Your task to perform on an android device: Open maps Image 0: 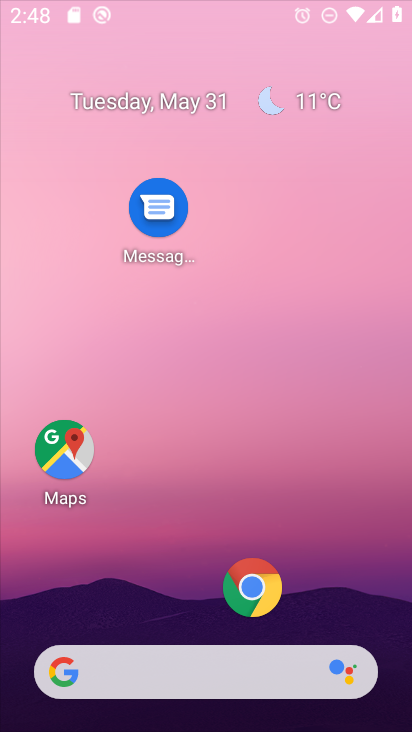
Step 0: click (353, 48)
Your task to perform on an android device: Open maps Image 1: 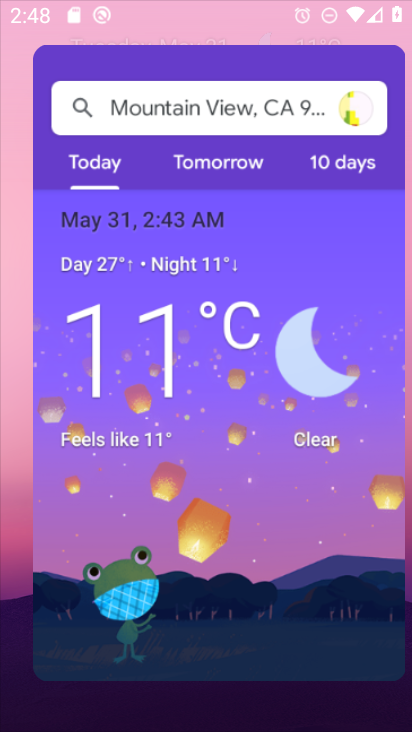
Step 1: drag from (190, 575) to (235, 167)
Your task to perform on an android device: Open maps Image 2: 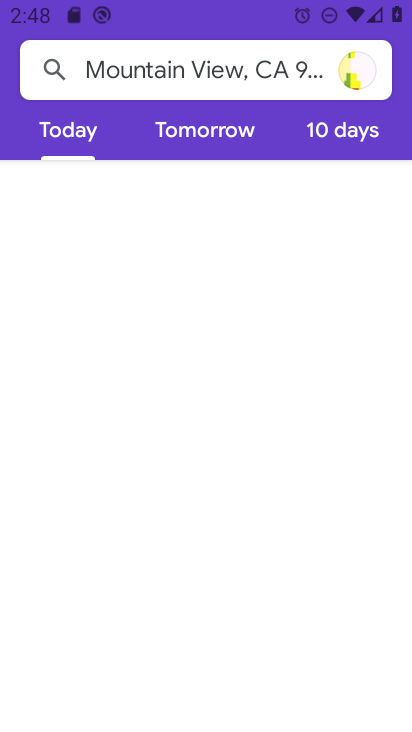
Step 2: press home button
Your task to perform on an android device: Open maps Image 3: 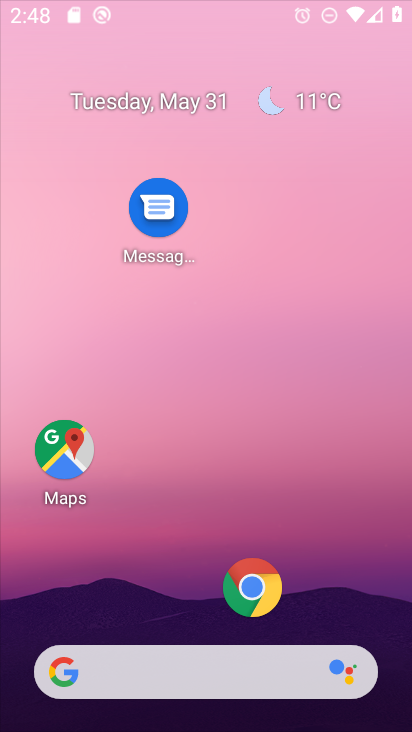
Step 3: drag from (251, 580) to (295, 118)
Your task to perform on an android device: Open maps Image 4: 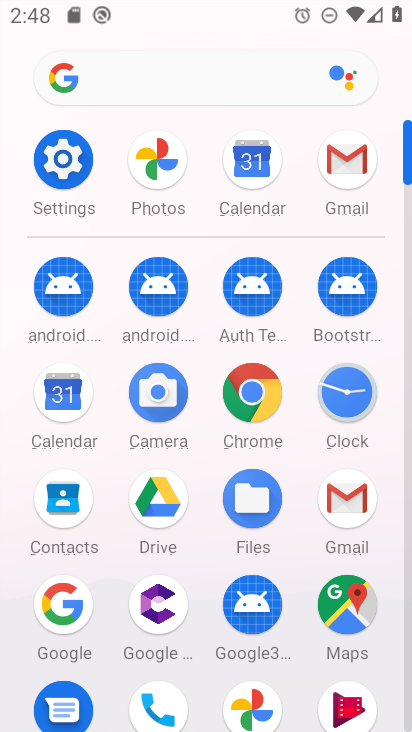
Step 4: click (331, 579)
Your task to perform on an android device: Open maps Image 5: 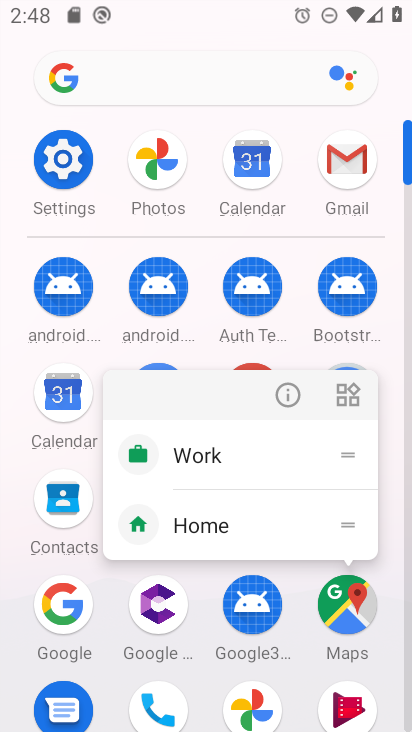
Step 5: click (280, 400)
Your task to perform on an android device: Open maps Image 6: 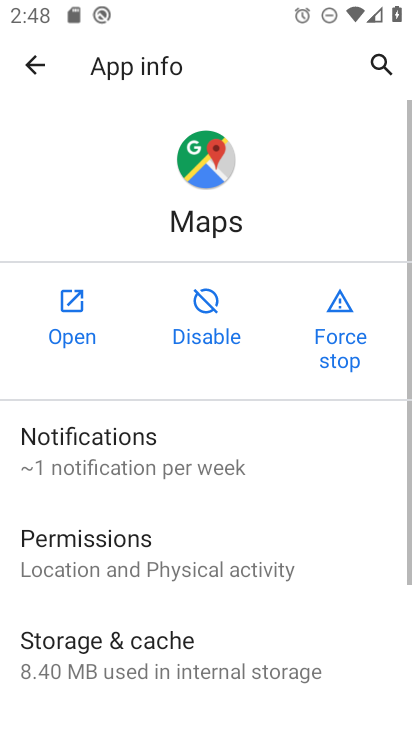
Step 6: click (67, 309)
Your task to perform on an android device: Open maps Image 7: 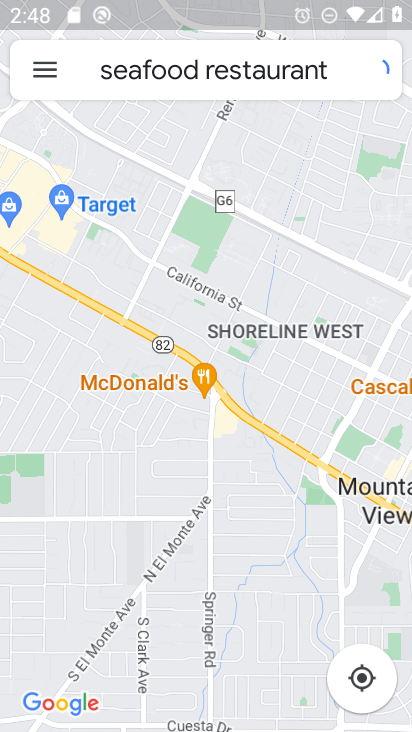
Step 7: task complete